Your task to perform on an android device: Toggle the flashlight Image 0: 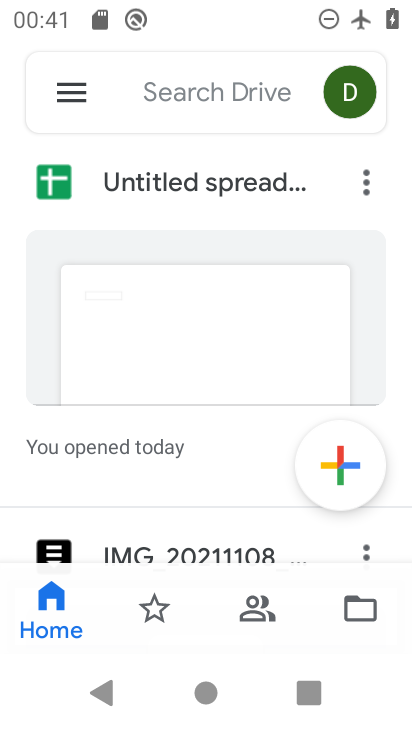
Step 0: press home button
Your task to perform on an android device: Toggle the flashlight Image 1: 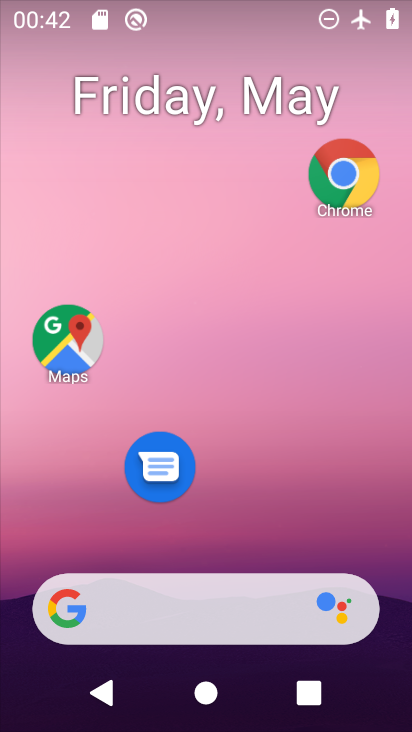
Step 1: drag from (304, 495) to (353, 198)
Your task to perform on an android device: Toggle the flashlight Image 2: 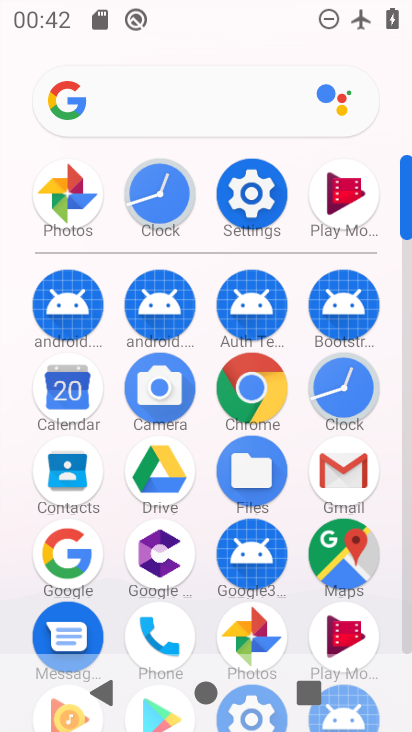
Step 2: click (241, 197)
Your task to perform on an android device: Toggle the flashlight Image 3: 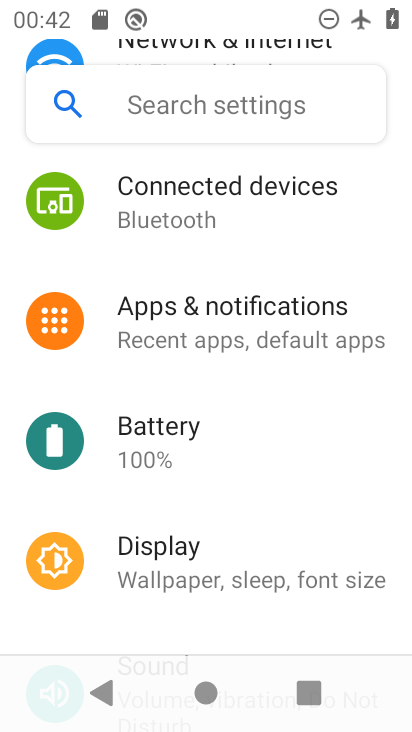
Step 3: task complete